Your task to perform on an android device: Go to Wikipedia Image 0: 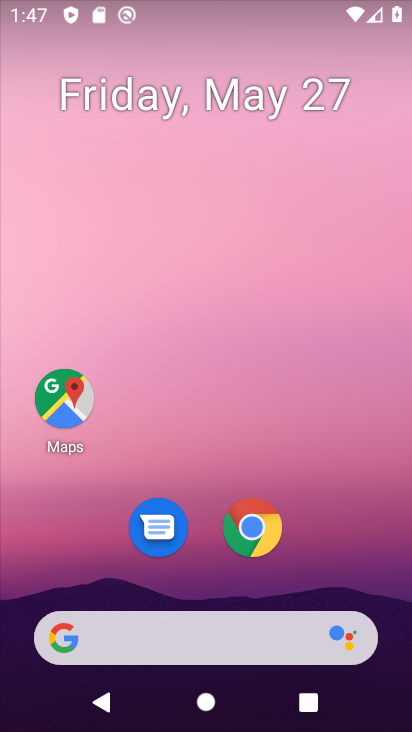
Step 0: drag from (169, 612) to (225, 175)
Your task to perform on an android device: Go to Wikipedia Image 1: 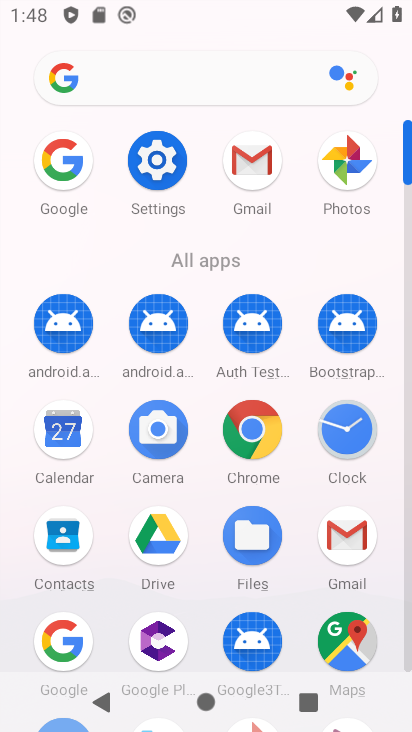
Step 1: click (236, 442)
Your task to perform on an android device: Go to Wikipedia Image 2: 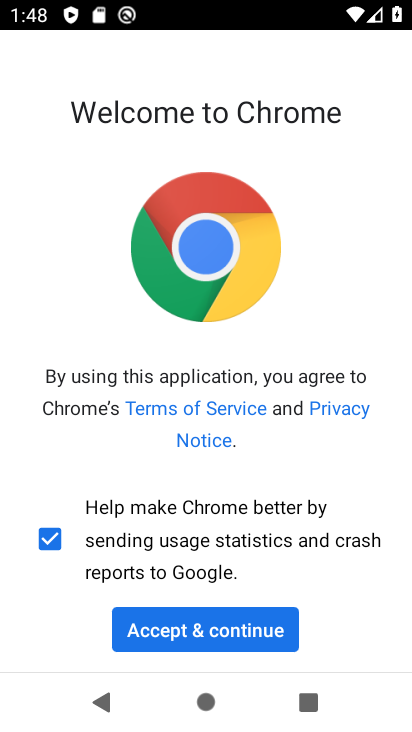
Step 2: click (160, 623)
Your task to perform on an android device: Go to Wikipedia Image 3: 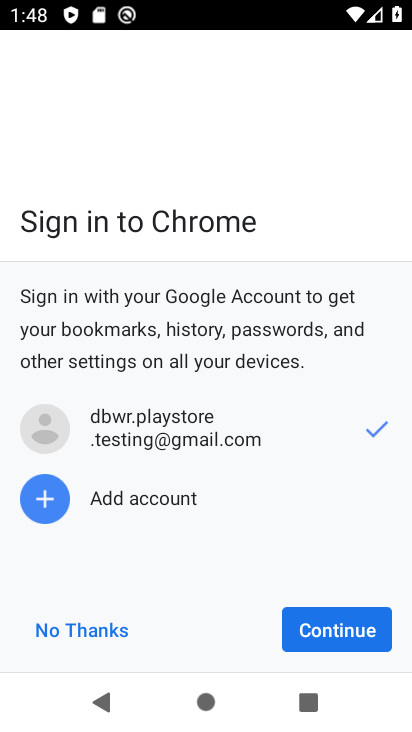
Step 3: click (317, 634)
Your task to perform on an android device: Go to Wikipedia Image 4: 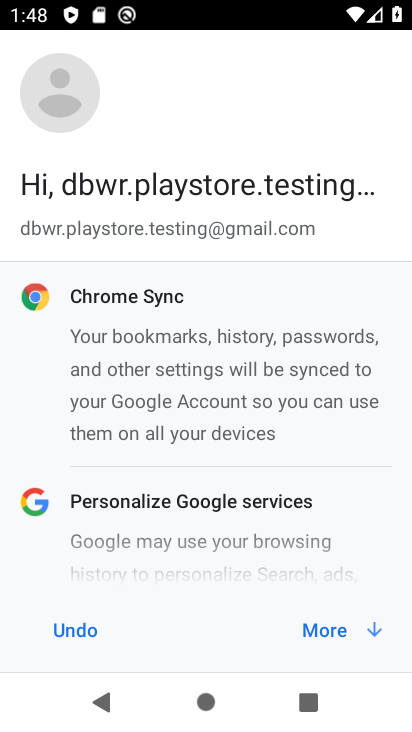
Step 4: click (317, 634)
Your task to perform on an android device: Go to Wikipedia Image 5: 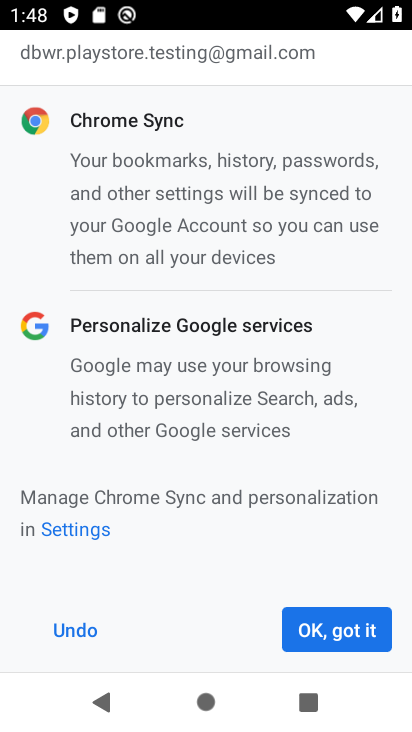
Step 5: click (317, 634)
Your task to perform on an android device: Go to Wikipedia Image 6: 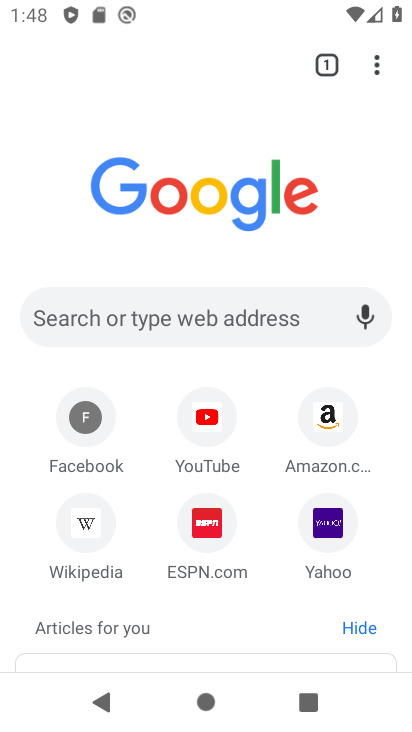
Step 6: click (96, 531)
Your task to perform on an android device: Go to Wikipedia Image 7: 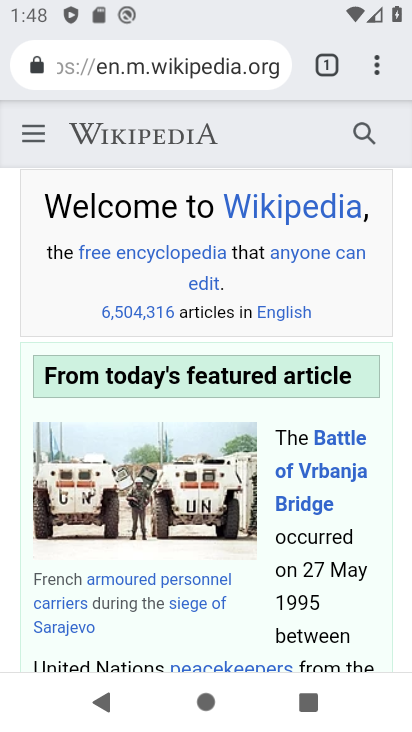
Step 7: task complete